Your task to perform on an android device: change the clock style Image 0: 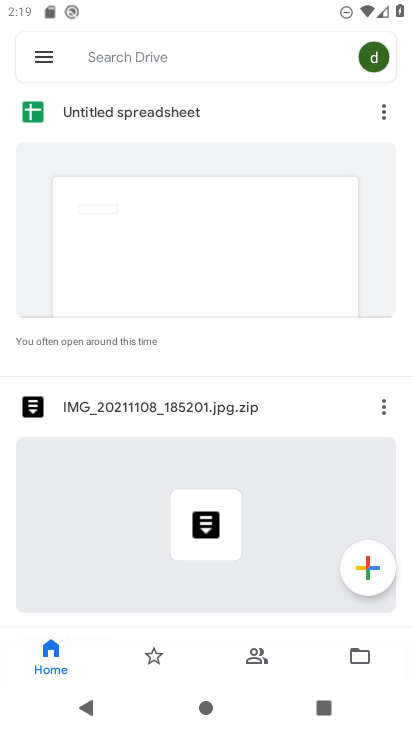
Step 0: press home button
Your task to perform on an android device: change the clock style Image 1: 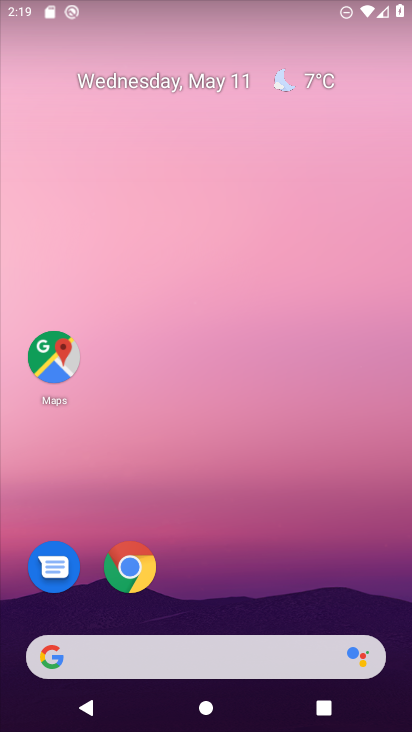
Step 1: drag from (362, 591) to (226, 189)
Your task to perform on an android device: change the clock style Image 2: 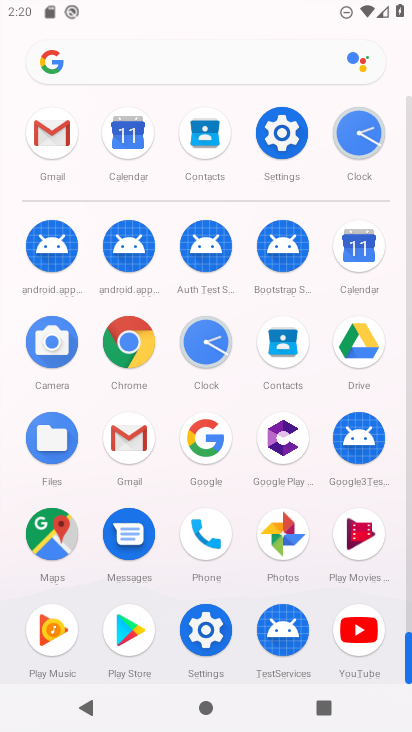
Step 2: click (199, 346)
Your task to perform on an android device: change the clock style Image 3: 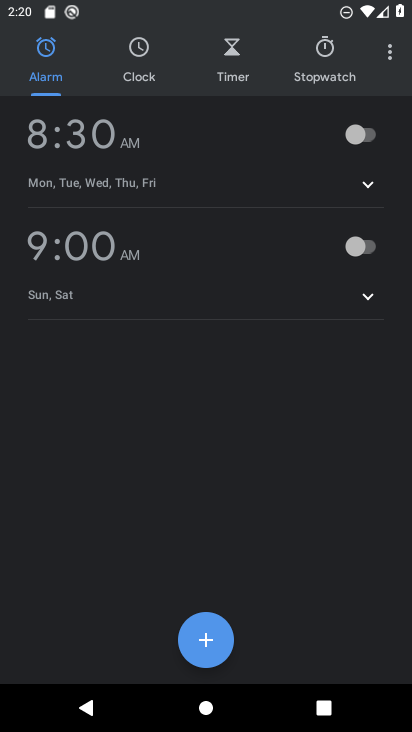
Step 3: click (391, 57)
Your task to perform on an android device: change the clock style Image 4: 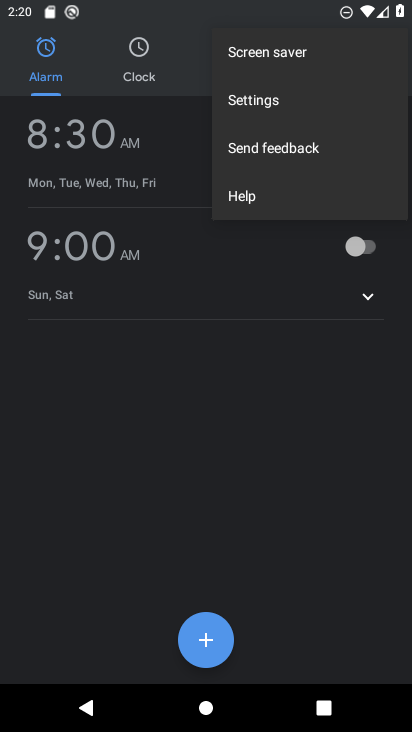
Step 4: click (267, 108)
Your task to perform on an android device: change the clock style Image 5: 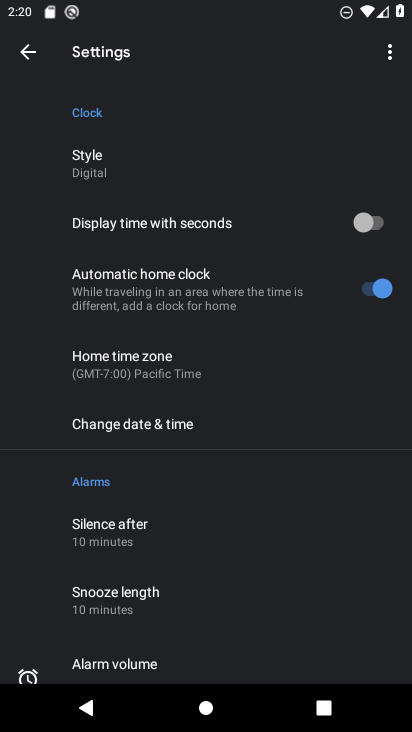
Step 5: click (183, 159)
Your task to perform on an android device: change the clock style Image 6: 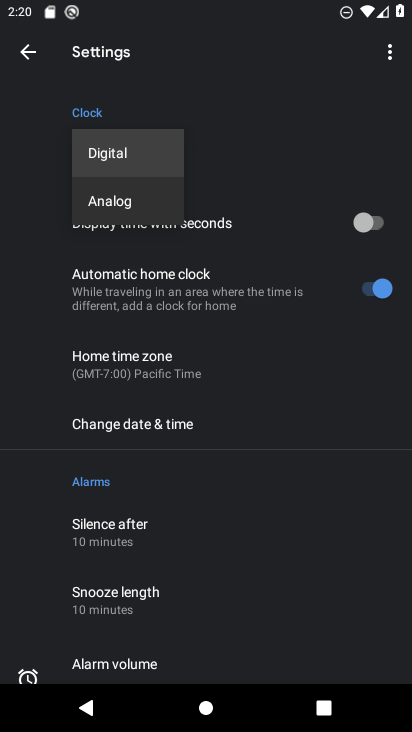
Step 6: click (149, 203)
Your task to perform on an android device: change the clock style Image 7: 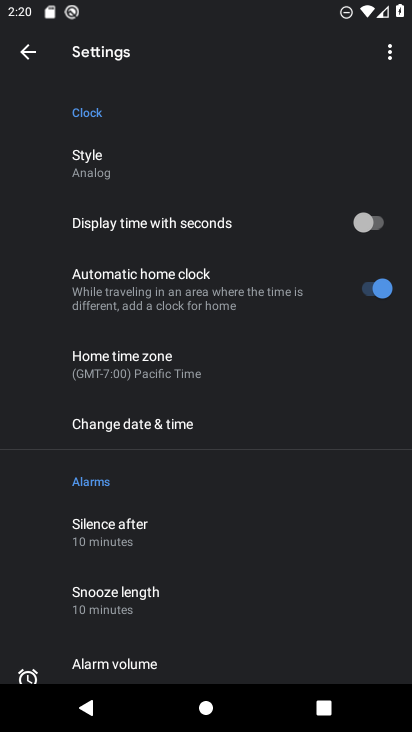
Step 7: task complete